Your task to perform on an android device: Open internet settings Image 0: 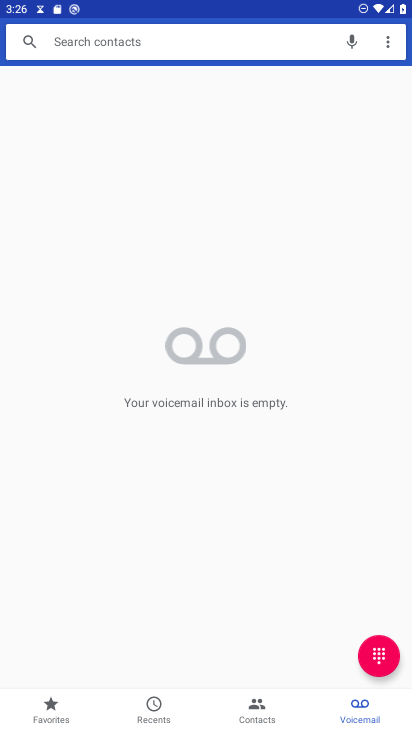
Step 0: press home button
Your task to perform on an android device: Open internet settings Image 1: 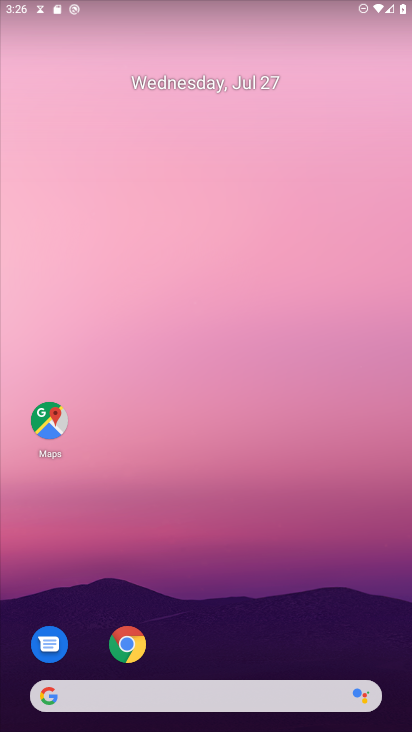
Step 1: drag from (258, 657) to (242, 211)
Your task to perform on an android device: Open internet settings Image 2: 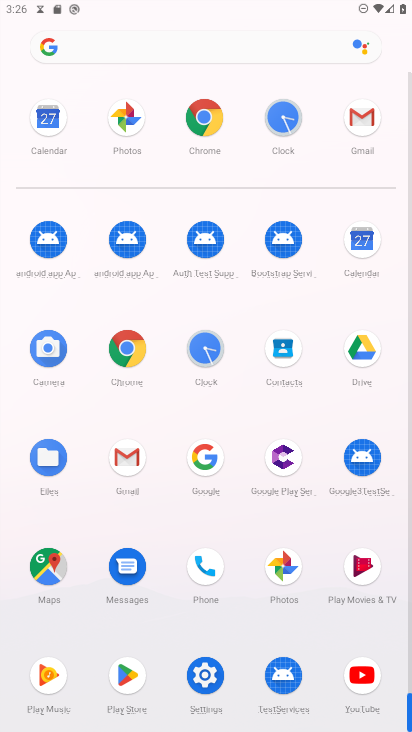
Step 2: click (206, 678)
Your task to perform on an android device: Open internet settings Image 3: 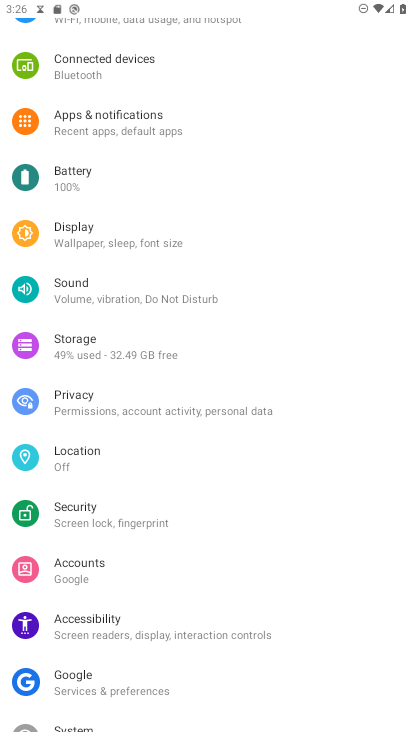
Step 3: drag from (150, 143) to (147, 499)
Your task to perform on an android device: Open internet settings Image 4: 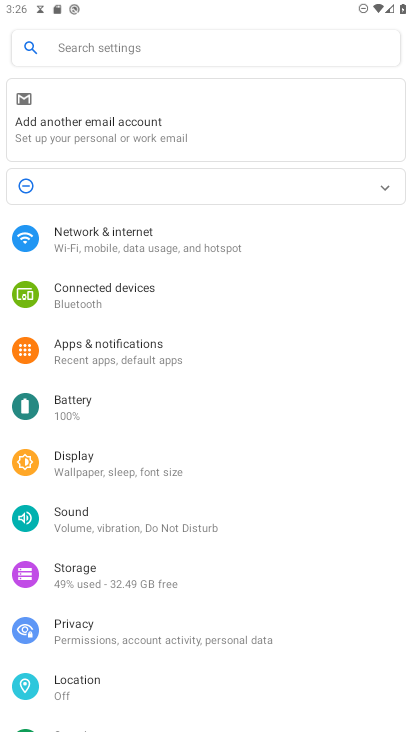
Step 4: click (158, 216)
Your task to perform on an android device: Open internet settings Image 5: 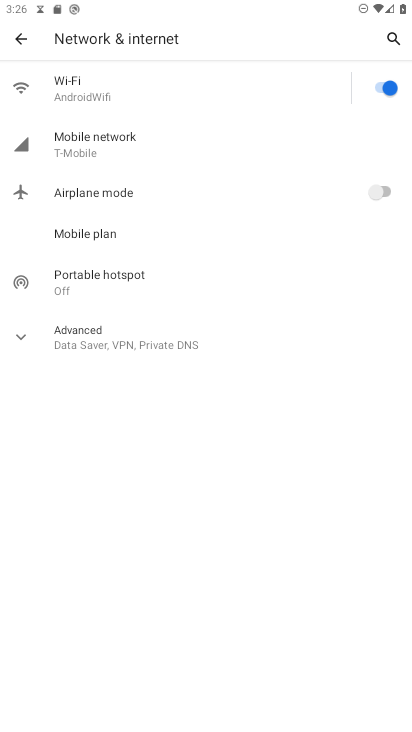
Step 5: task complete